Your task to perform on an android device: turn on the 24-hour format for clock Image 0: 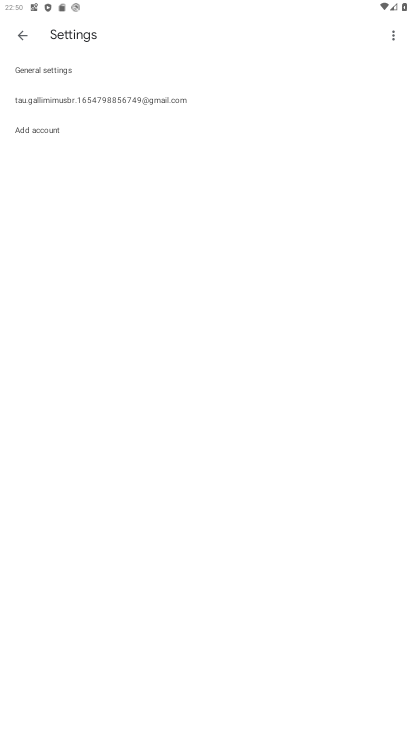
Step 0: press home button
Your task to perform on an android device: turn on the 24-hour format for clock Image 1: 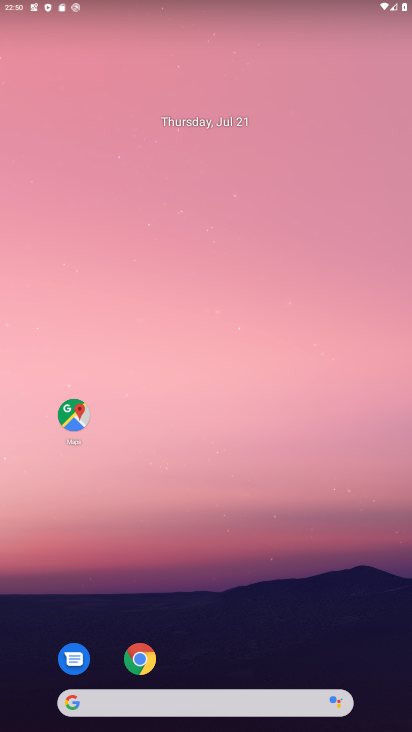
Step 1: drag from (247, 642) to (278, 131)
Your task to perform on an android device: turn on the 24-hour format for clock Image 2: 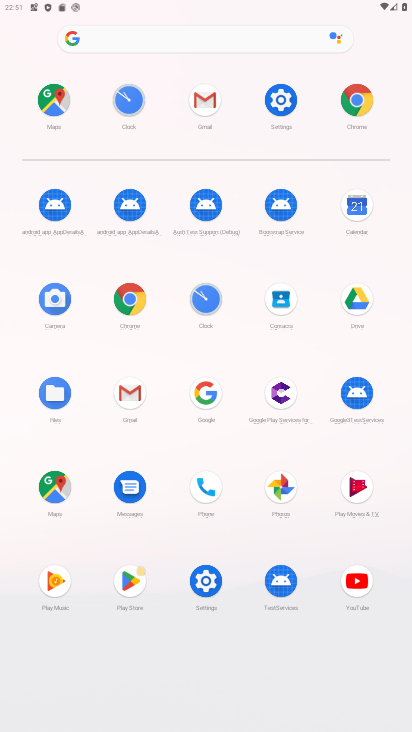
Step 2: click (218, 293)
Your task to perform on an android device: turn on the 24-hour format for clock Image 3: 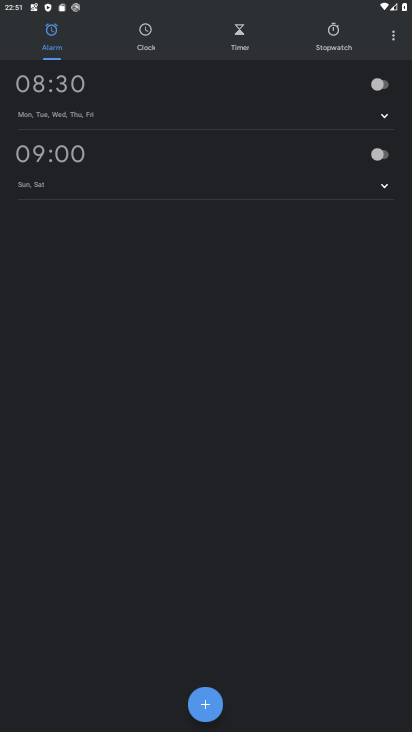
Step 3: click (395, 27)
Your task to perform on an android device: turn on the 24-hour format for clock Image 4: 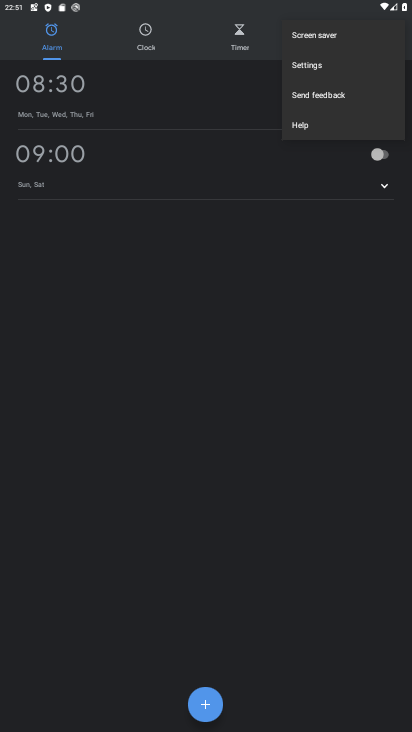
Step 4: click (318, 55)
Your task to perform on an android device: turn on the 24-hour format for clock Image 5: 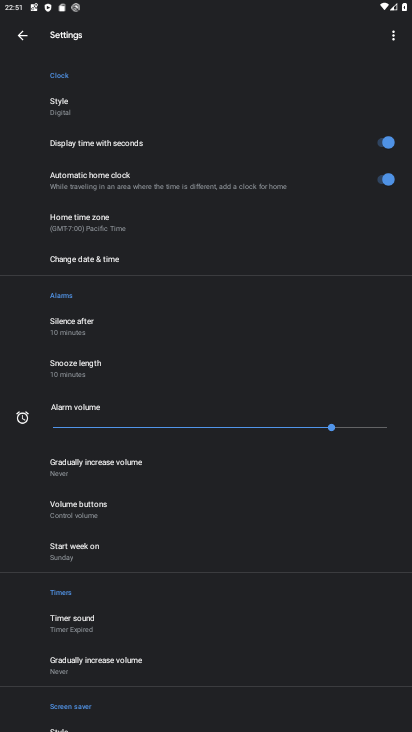
Step 5: click (126, 262)
Your task to perform on an android device: turn on the 24-hour format for clock Image 6: 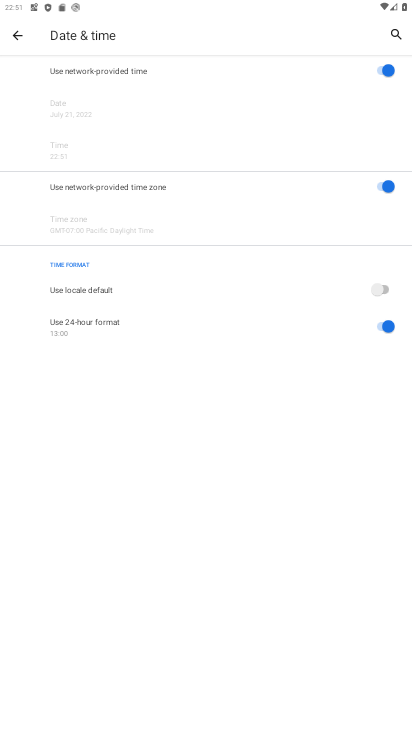
Step 6: task complete